Your task to perform on an android device: Open eBay Image 0: 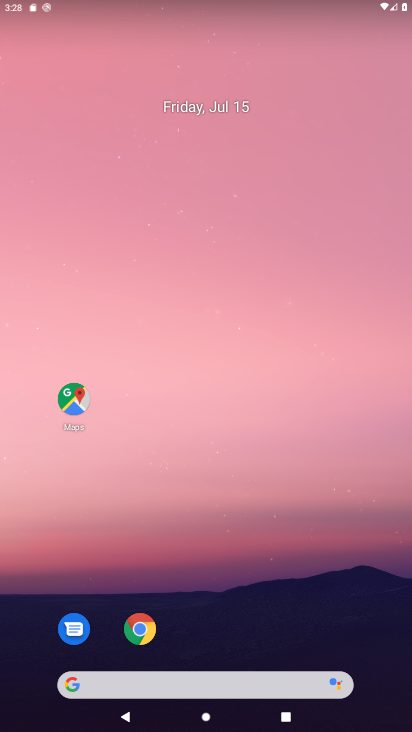
Step 0: drag from (202, 589) to (189, 109)
Your task to perform on an android device: Open eBay Image 1: 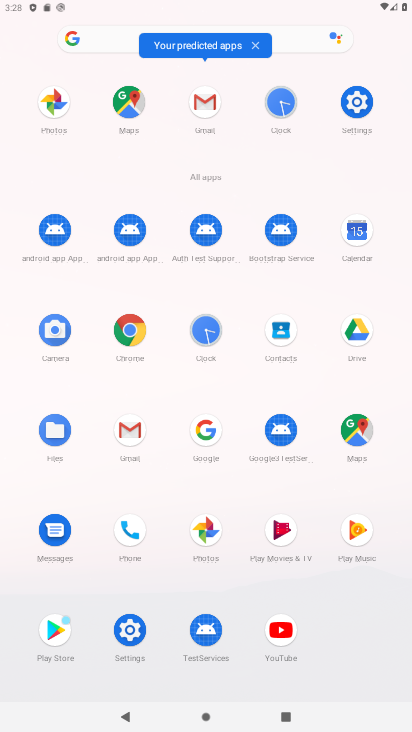
Step 1: click (142, 327)
Your task to perform on an android device: Open eBay Image 2: 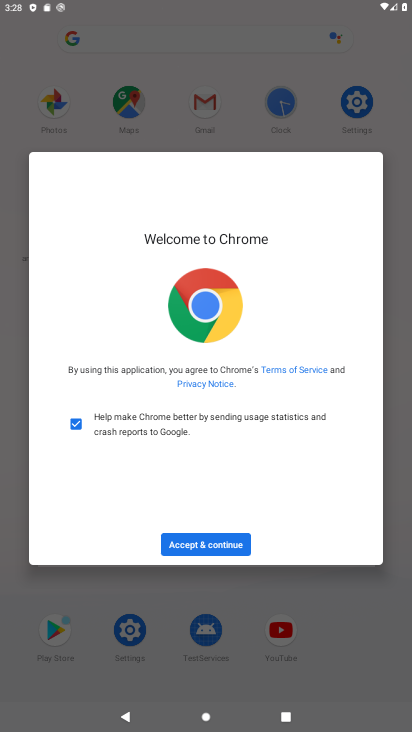
Step 2: click (228, 540)
Your task to perform on an android device: Open eBay Image 3: 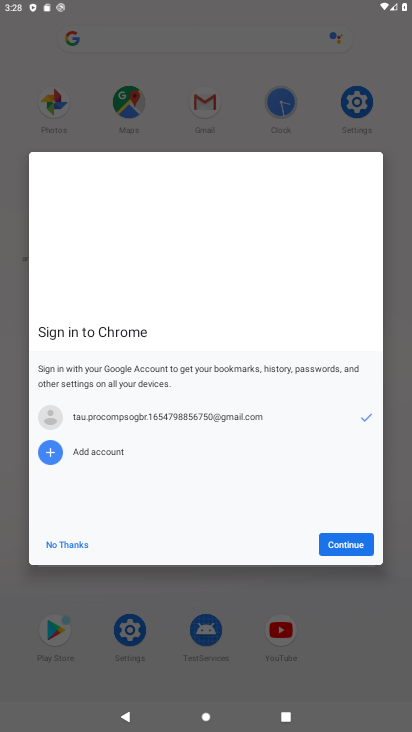
Step 3: click (360, 533)
Your task to perform on an android device: Open eBay Image 4: 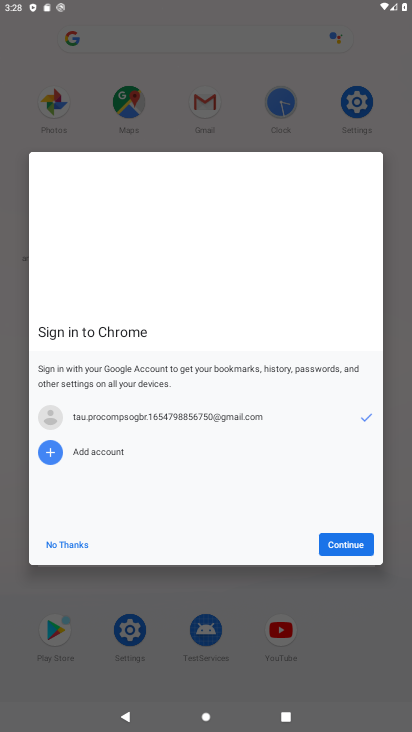
Step 4: click (360, 533)
Your task to perform on an android device: Open eBay Image 5: 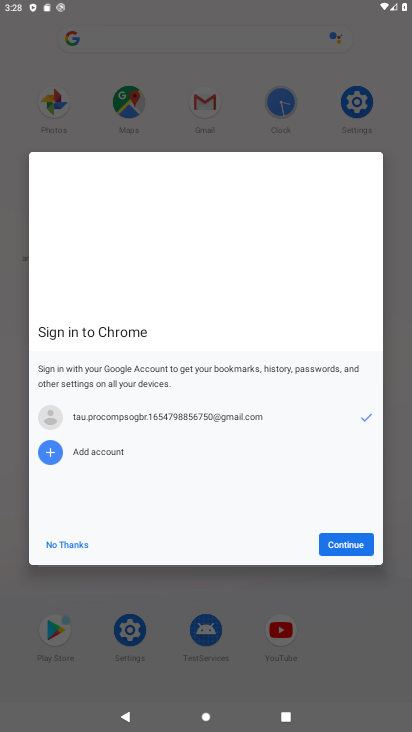
Step 5: click (360, 533)
Your task to perform on an android device: Open eBay Image 6: 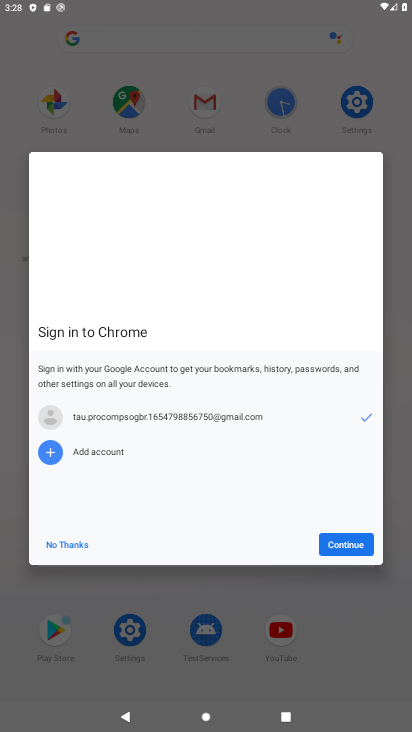
Step 6: click (360, 533)
Your task to perform on an android device: Open eBay Image 7: 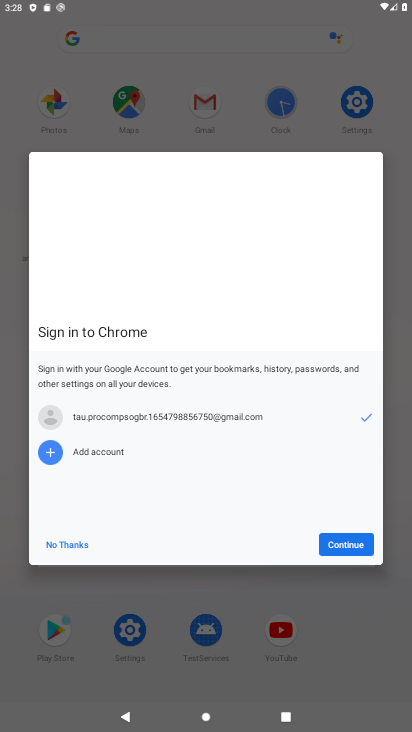
Step 7: click (359, 537)
Your task to perform on an android device: Open eBay Image 8: 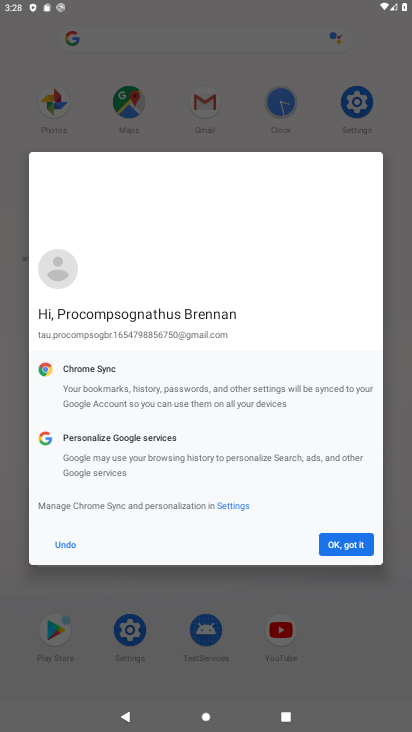
Step 8: click (359, 537)
Your task to perform on an android device: Open eBay Image 9: 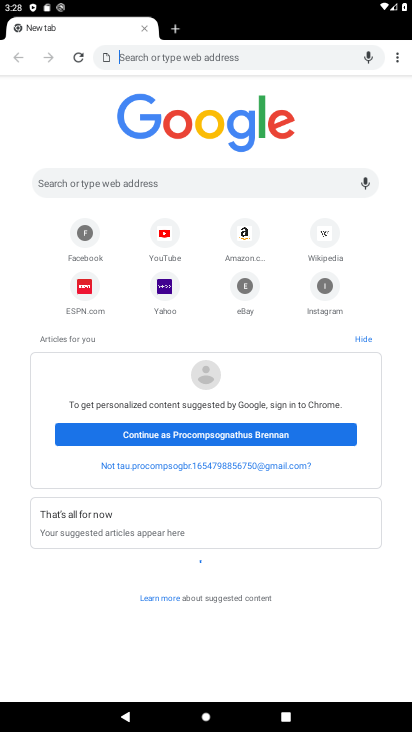
Step 9: click (238, 55)
Your task to perform on an android device: Open eBay Image 10: 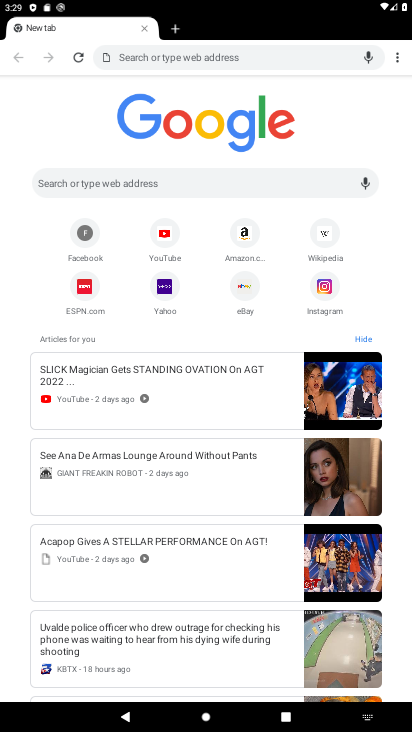
Step 10: type "eBay"
Your task to perform on an android device: Open eBay Image 11: 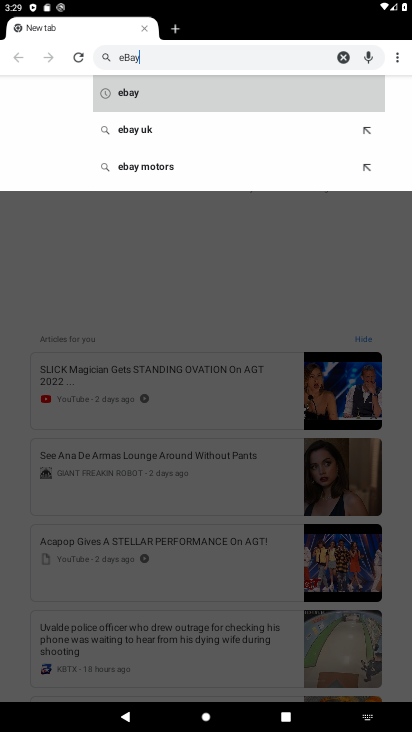
Step 11: click (119, 91)
Your task to perform on an android device: Open eBay Image 12: 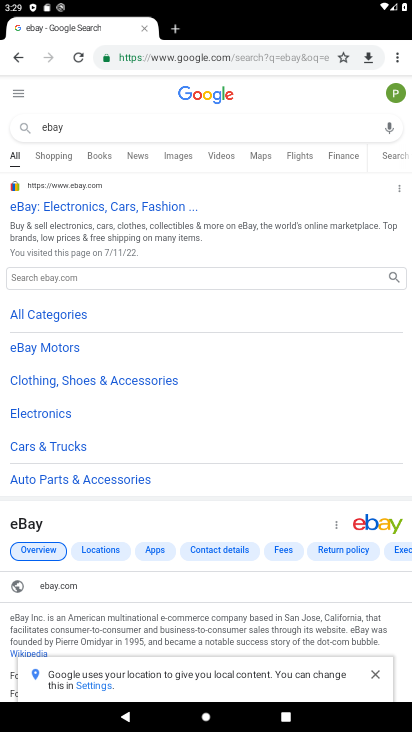
Step 12: click (78, 214)
Your task to perform on an android device: Open eBay Image 13: 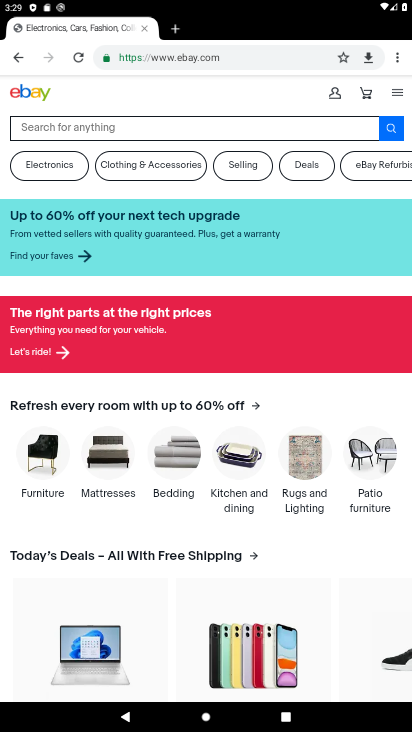
Step 13: task complete